Your task to perform on an android device: toggle data saver in the chrome app Image 0: 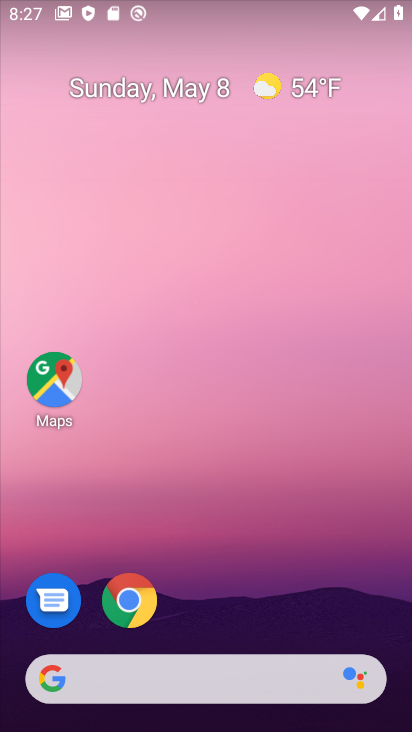
Step 0: click (123, 601)
Your task to perform on an android device: toggle data saver in the chrome app Image 1: 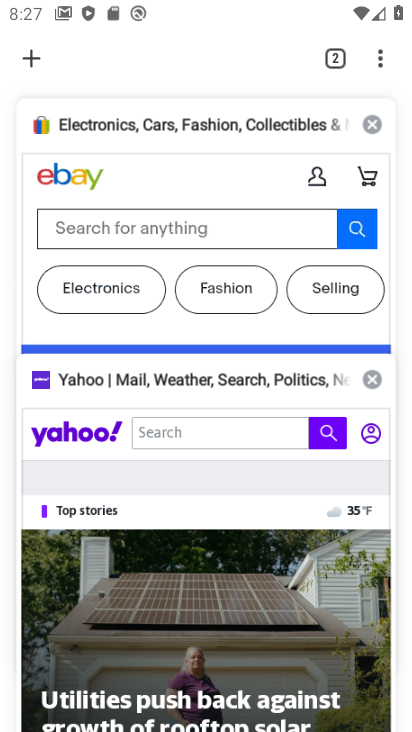
Step 1: click (388, 50)
Your task to perform on an android device: toggle data saver in the chrome app Image 2: 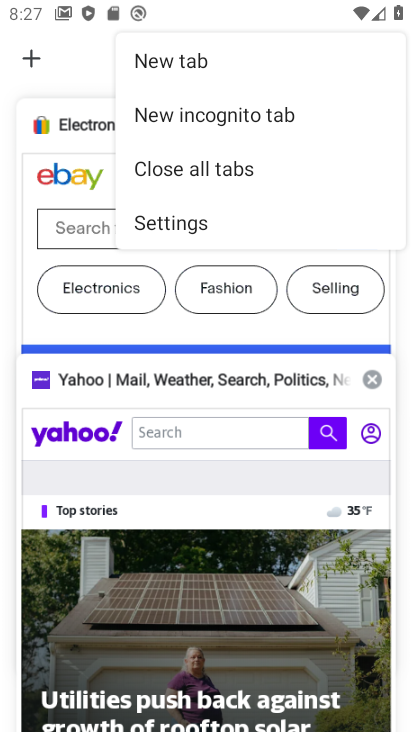
Step 2: click (172, 241)
Your task to perform on an android device: toggle data saver in the chrome app Image 3: 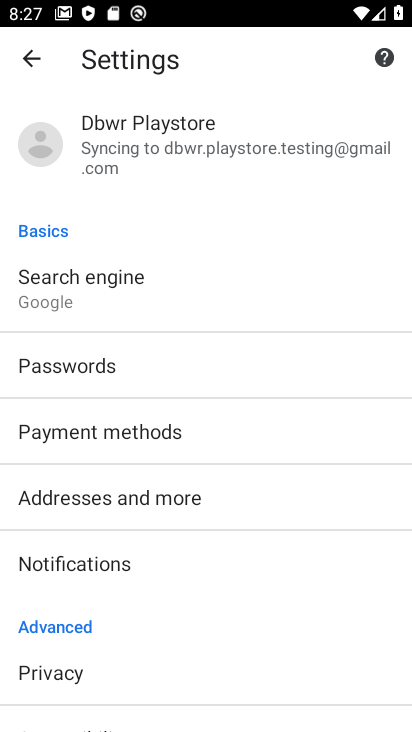
Step 3: drag from (174, 593) to (195, 183)
Your task to perform on an android device: toggle data saver in the chrome app Image 4: 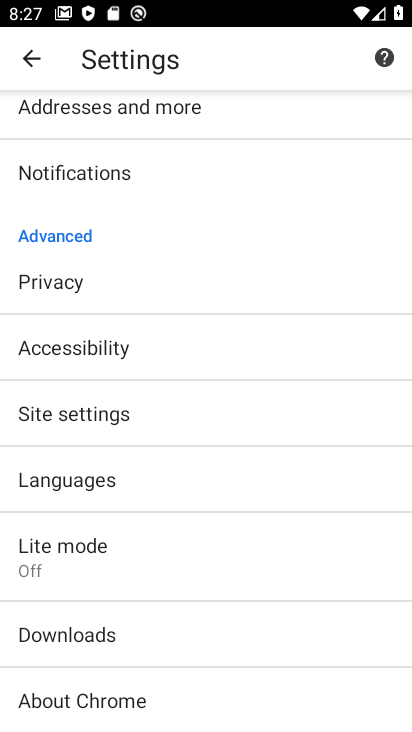
Step 4: drag from (187, 621) to (286, 205)
Your task to perform on an android device: toggle data saver in the chrome app Image 5: 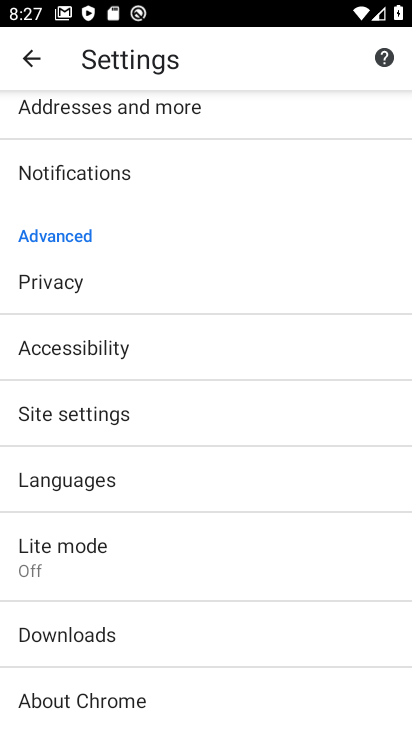
Step 5: click (73, 557)
Your task to perform on an android device: toggle data saver in the chrome app Image 6: 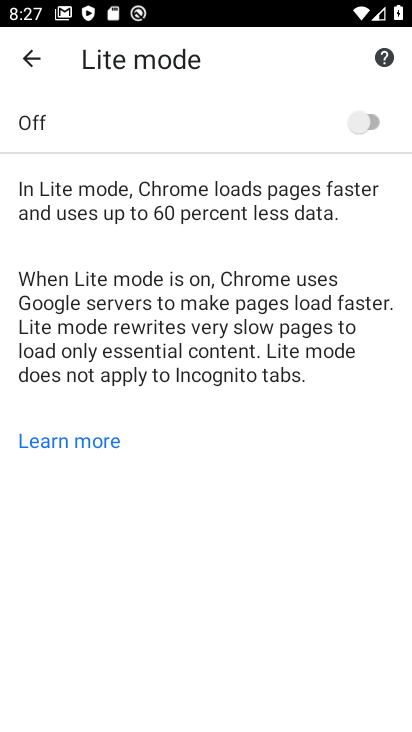
Step 6: click (367, 127)
Your task to perform on an android device: toggle data saver in the chrome app Image 7: 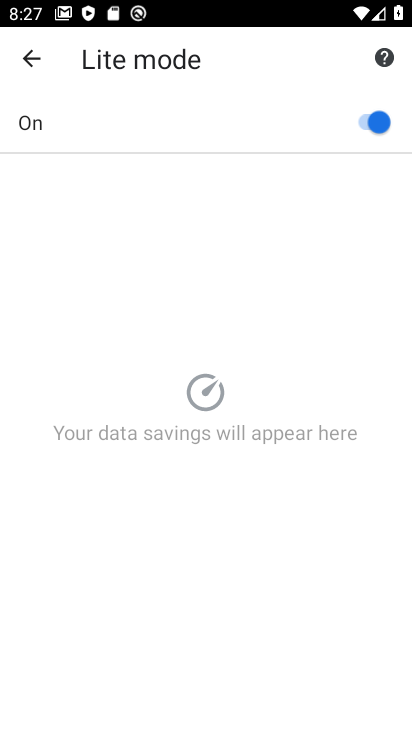
Step 7: click (367, 127)
Your task to perform on an android device: toggle data saver in the chrome app Image 8: 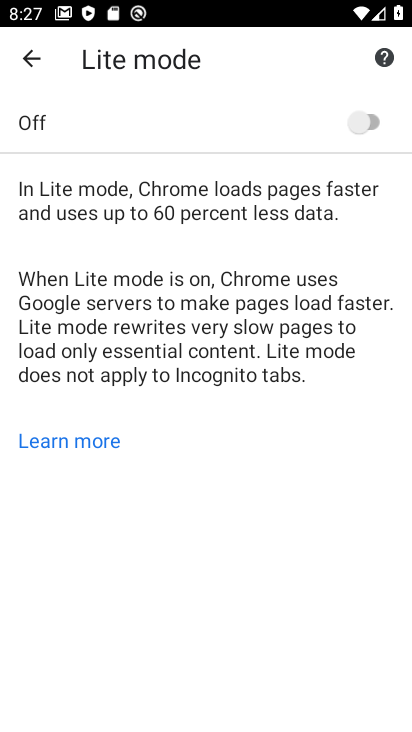
Step 8: task complete